Your task to perform on an android device: Open maps Image 0: 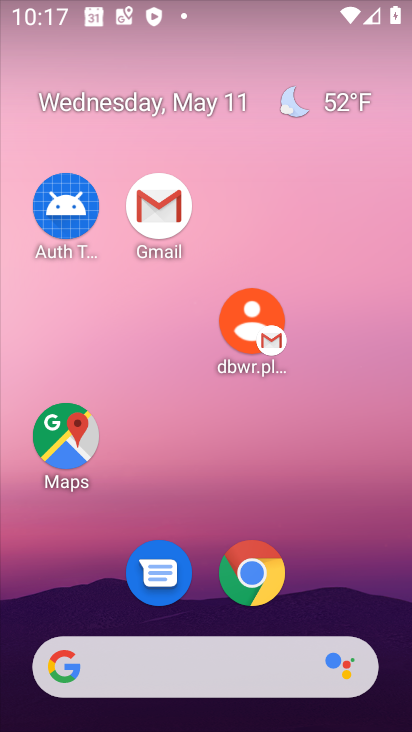
Step 0: drag from (352, 584) to (148, 57)
Your task to perform on an android device: Open maps Image 1: 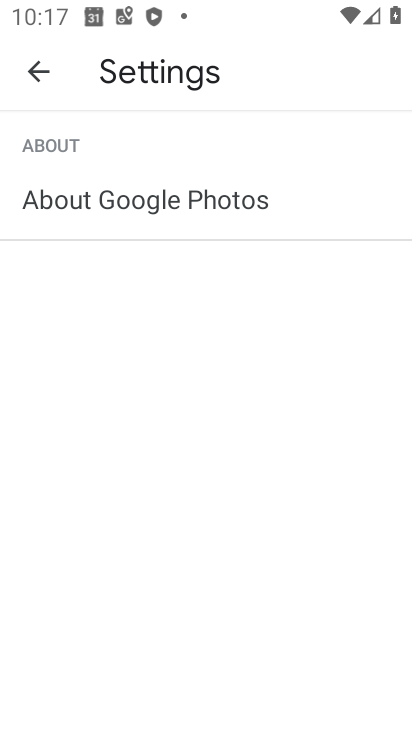
Step 1: press back button
Your task to perform on an android device: Open maps Image 2: 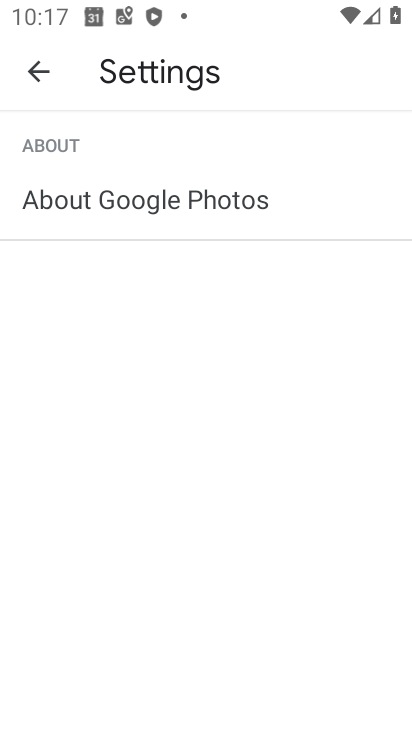
Step 2: click (34, 74)
Your task to perform on an android device: Open maps Image 3: 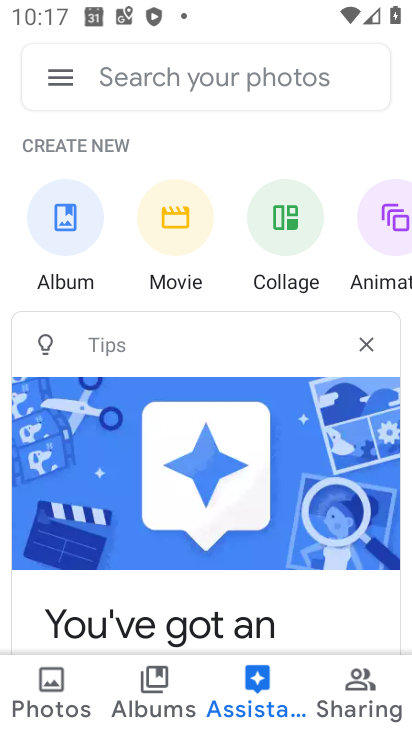
Step 3: press back button
Your task to perform on an android device: Open maps Image 4: 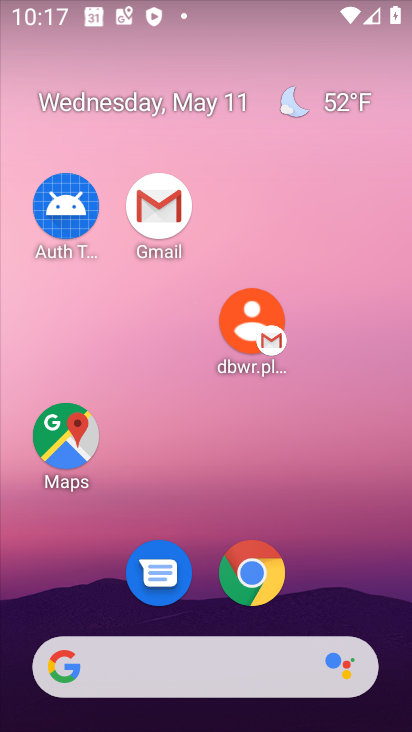
Step 4: drag from (304, 535) to (78, 4)
Your task to perform on an android device: Open maps Image 5: 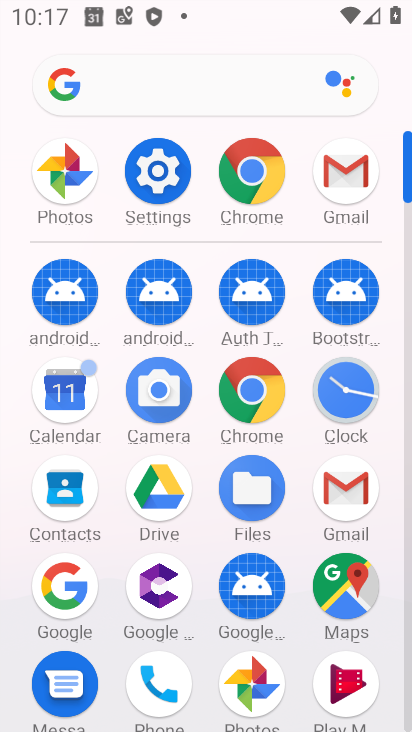
Step 5: click (328, 647)
Your task to perform on an android device: Open maps Image 6: 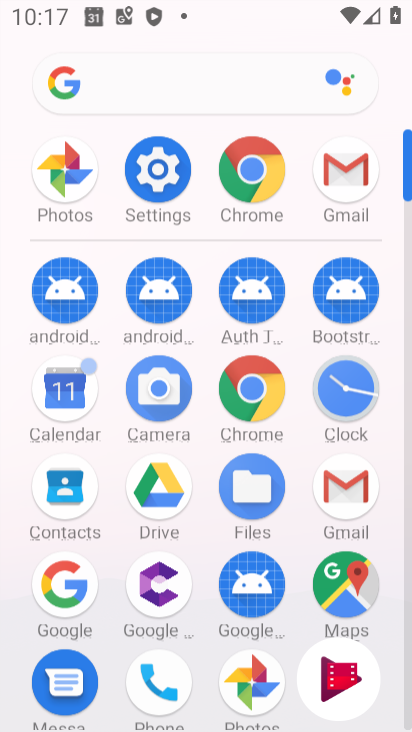
Step 6: click (349, 582)
Your task to perform on an android device: Open maps Image 7: 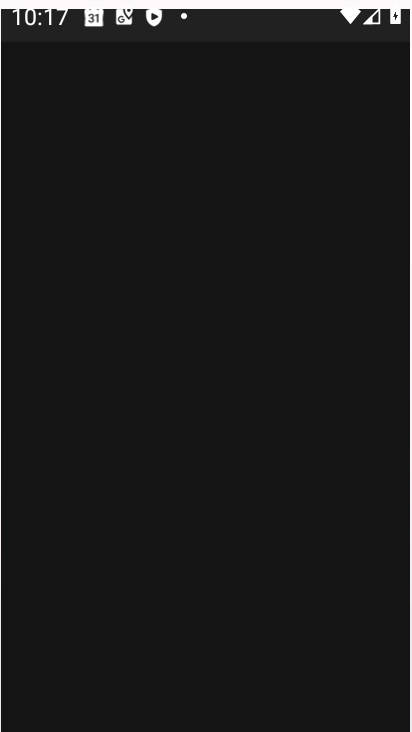
Step 7: click (349, 582)
Your task to perform on an android device: Open maps Image 8: 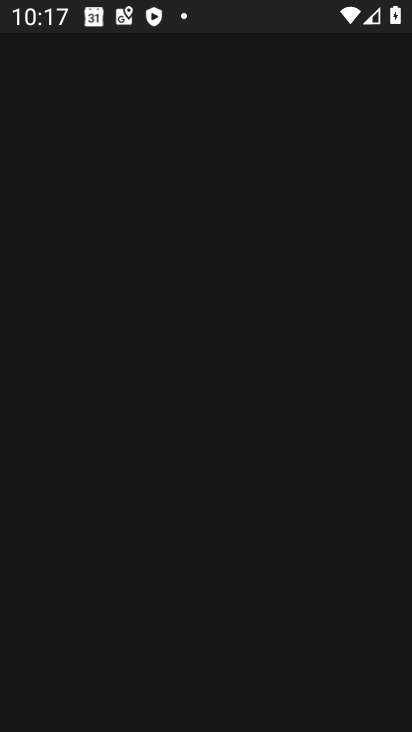
Step 8: click (349, 582)
Your task to perform on an android device: Open maps Image 9: 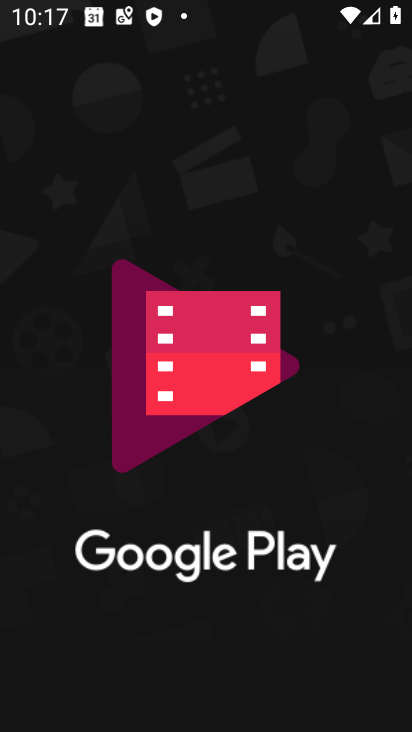
Step 9: press back button
Your task to perform on an android device: Open maps Image 10: 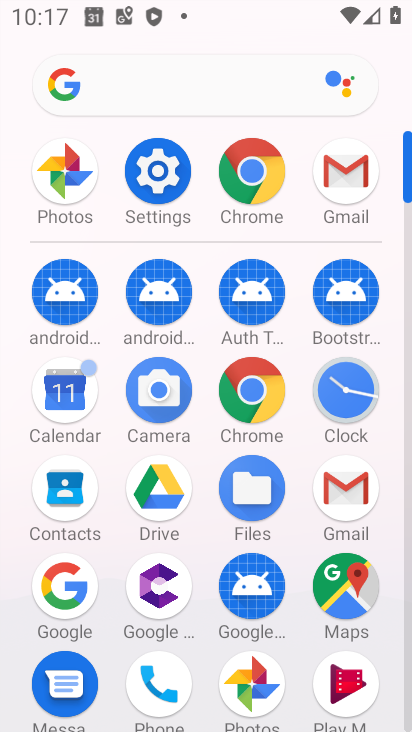
Step 10: click (351, 576)
Your task to perform on an android device: Open maps Image 11: 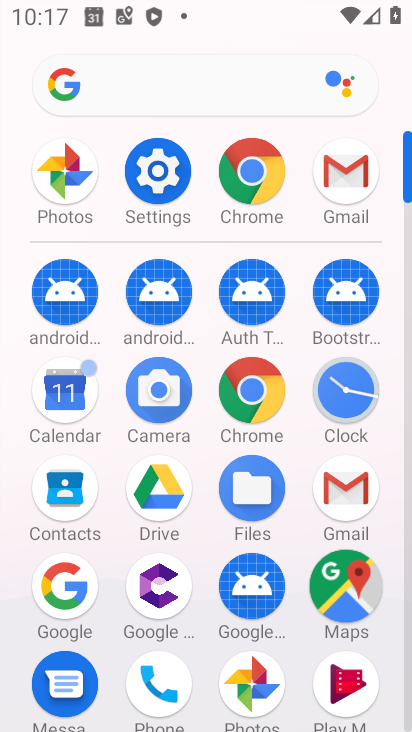
Step 11: click (355, 573)
Your task to perform on an android device: Open maps Image 12: 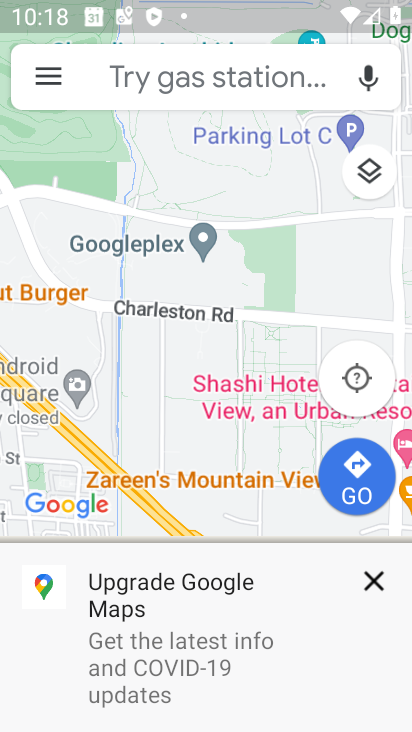
Step 12: task complete